Your task to perform on an android device: change the clock display to analog Image 0: 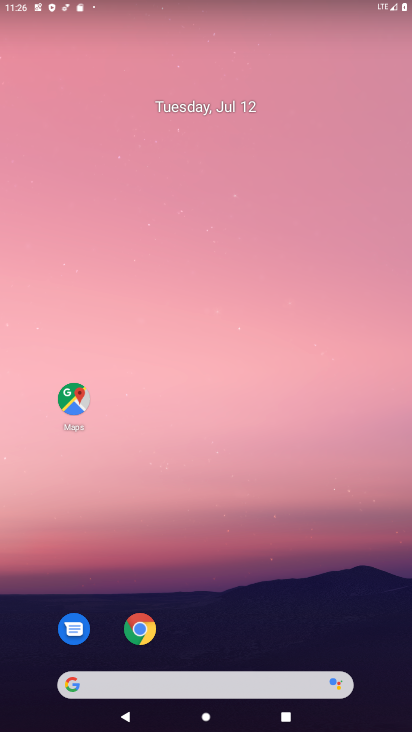
Step 0: drag from (222, 644) to (271, 61)
Your task to perform on an android device: change the clock display to analog Image 1: 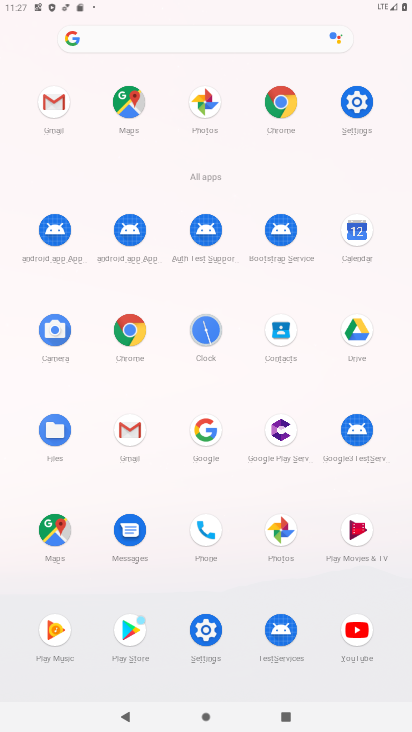
Step 1: click (205, 337)
Your task to perform on an android device: change the clock display to analog Image 2: 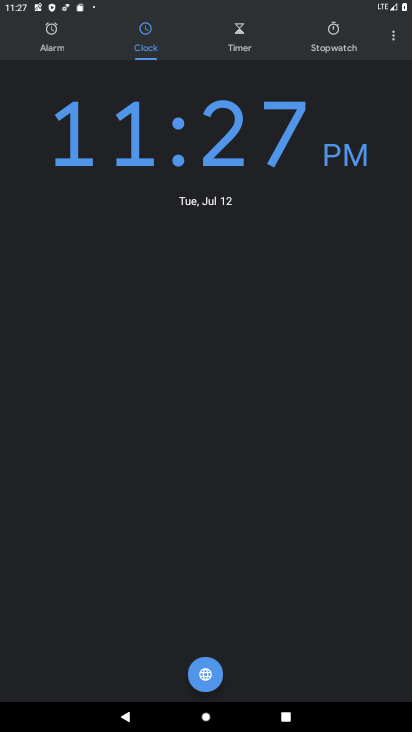
Step 2: click (391, 26)
Your task to perform on an android device: change the clock display to analog Image 3: 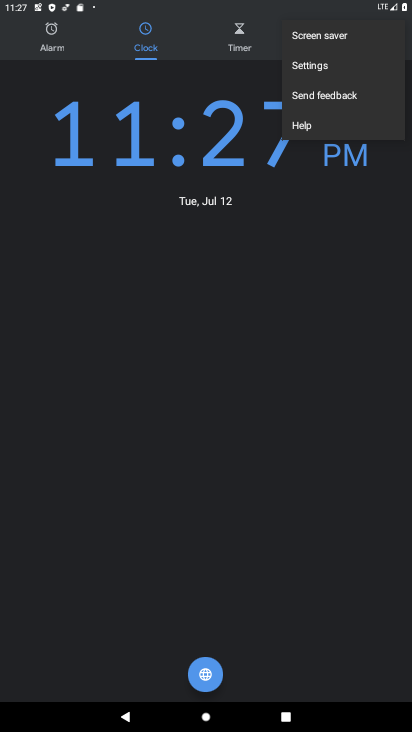
Step 3: click (339, 59)
Your task to perform on an android device: change the clock display to analog Image 4: 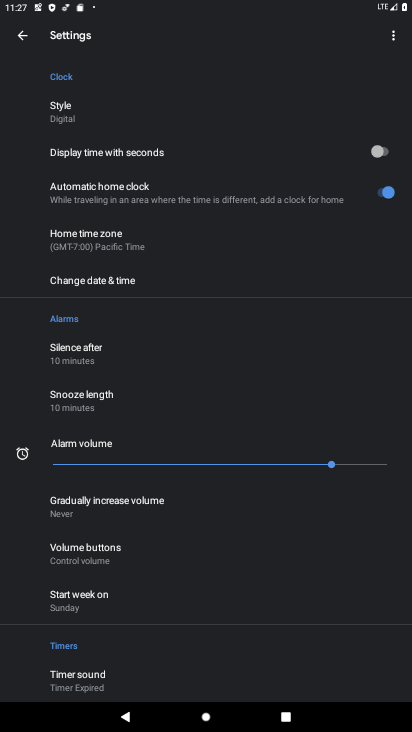
Step 4: click (83, 108)
Your task to perform on an android device: change the clock display to analog Image 5: 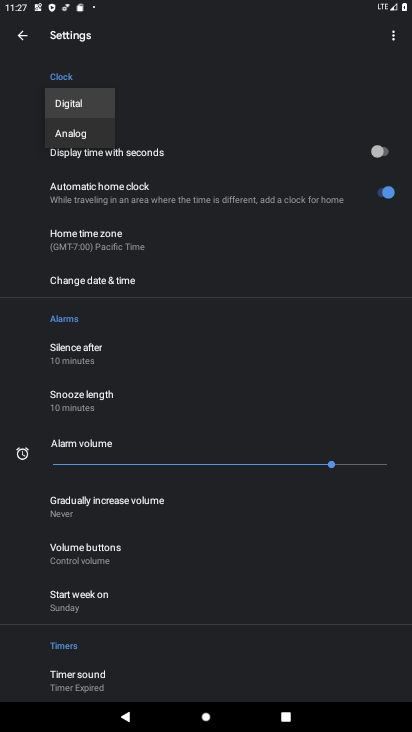
Step 5: click (89, 128)
Your task to perform on an android device: change the clock display to analog Image 6: 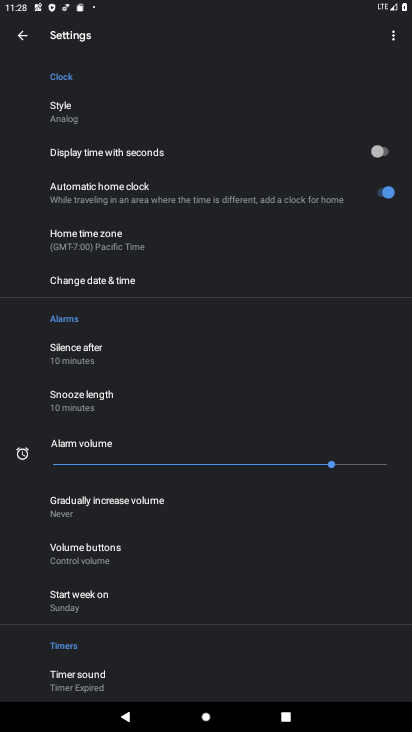
Step 6: task complete